Your task to perform on an android device: toggle pop-ups in chrome Image 0: 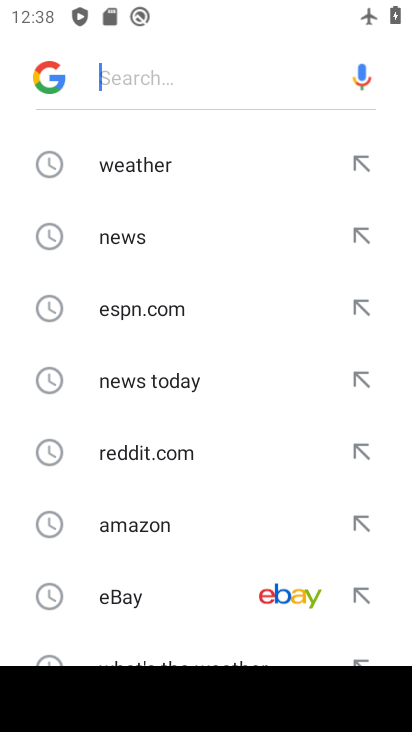
Step 0: press home button
Your task to perform on an android device: toggle pop-ups in chrome Image 1: 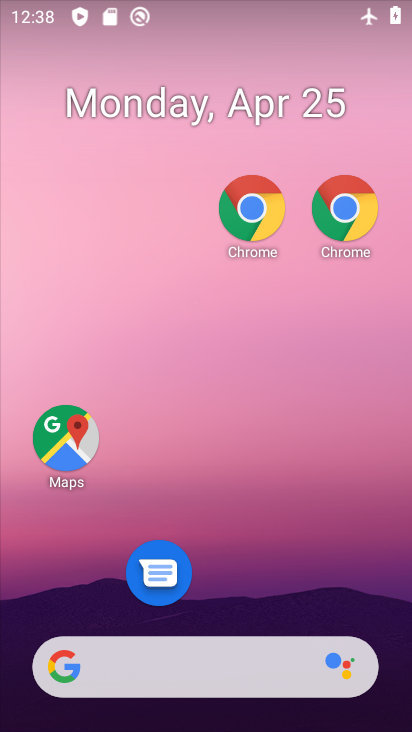
Step 1: drag from (160, 496) to (111, 168)
Your task to perform on an android device: toggle pop-ups in chrome Image 2: 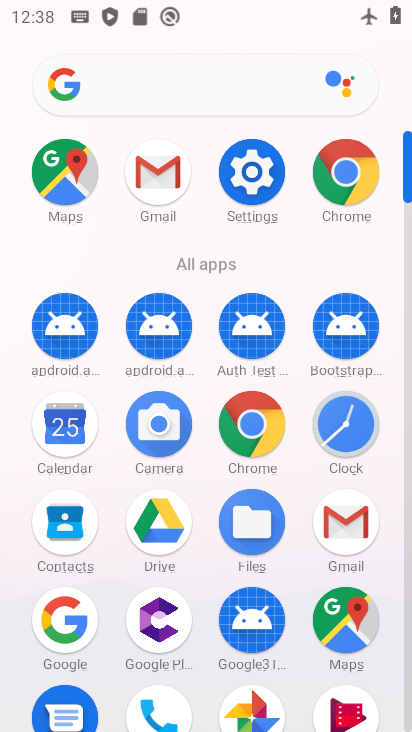
Step 2: click (333, 172)
Your task to perform on an android device: toggle pop-ups in chrome Image 3: 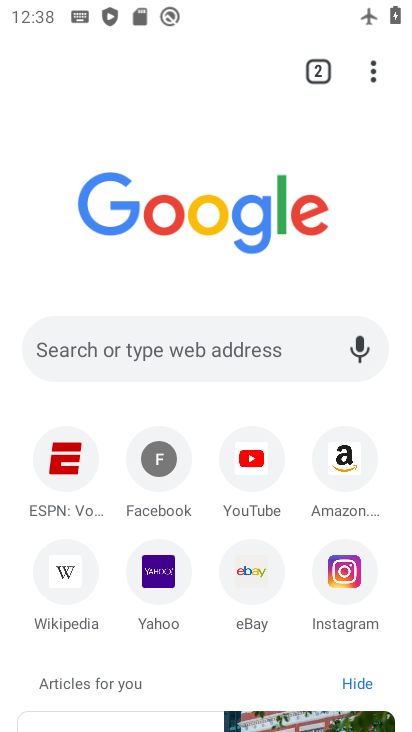
Step 3: drag from (369, 68) to (126, 612)
Your task to perform on an android device: toggle pop-ups in chrome Image 4: 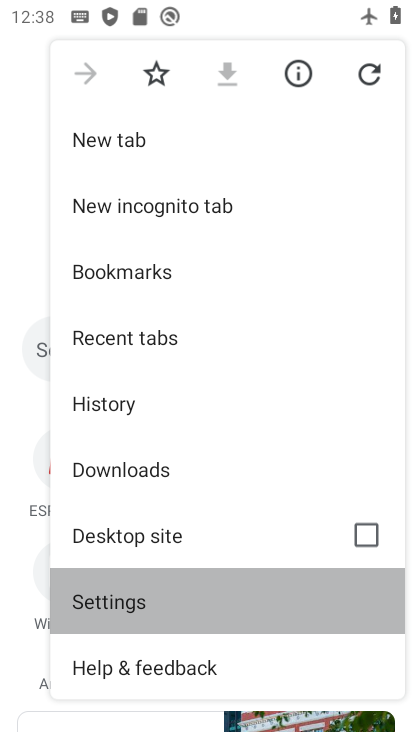
Step 4: click (126, 612)
Your task to perform on an android device: toggle pop-ups in chrome Image 5: 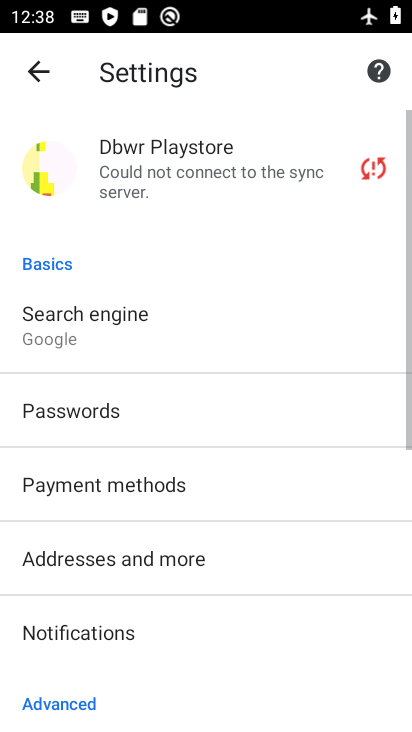
Step 5: drag from (175, 503) to (110, 66)
Your task to perform on an android device: toggle pop-ups in chrome Image 6: 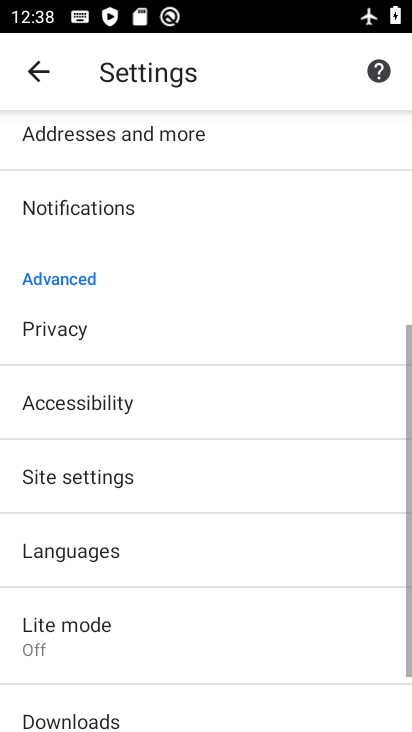
Step 6: drag from (208, 494) to (142, 76)
Your task to perform on an android device: toggle pop-ups in chrome Image 7: 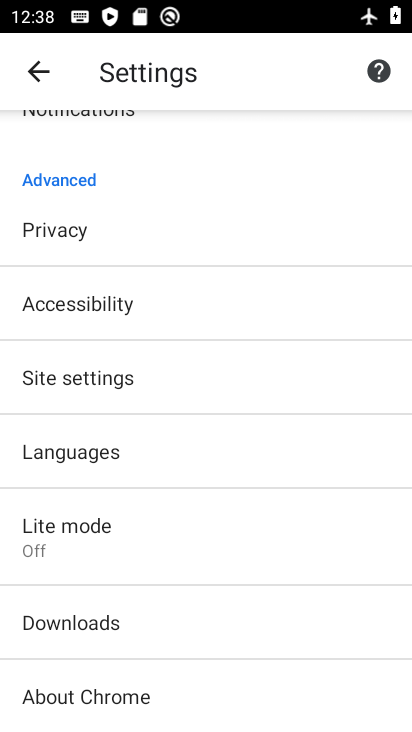
Step 7: click (72, 380)
Your task to perform on an android device: toggle pop-ups in chrome Image 8: 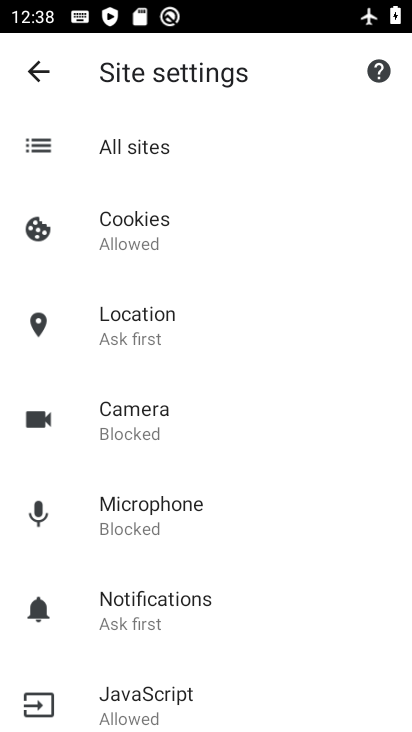
Step 8: drag from (178, 567) to (107, 174)
Your task to perform on an android device: toggle pop-ups in chrome Image 9: 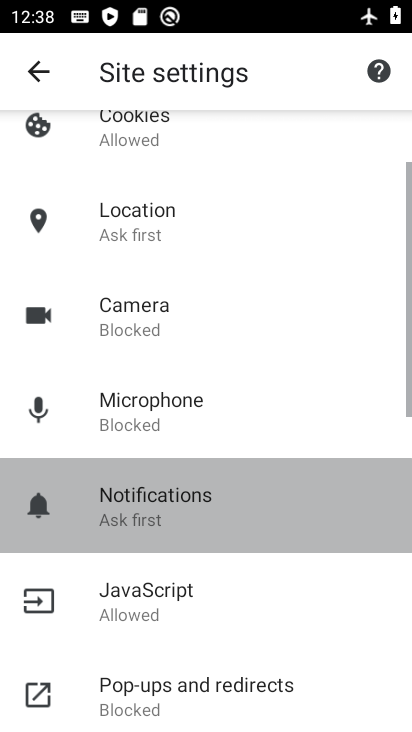
Step 9: drag from (208, 596) to (172, 165)
Your task to perform on an android device: toggle pop-ups in chrome Image 10: 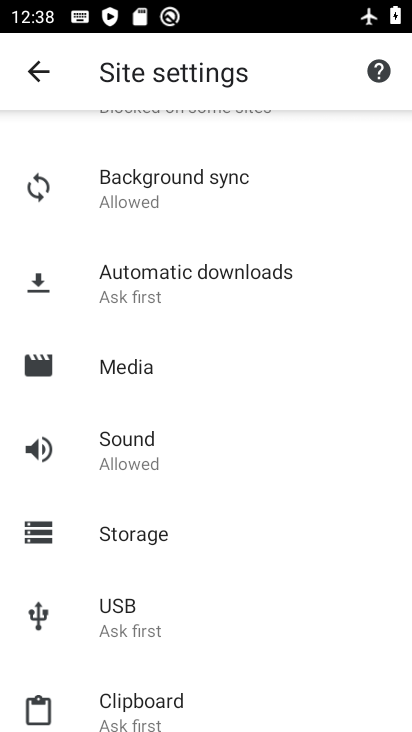
Step 10: drag from (256, 568) to (227, 535)
Your task to perform on an android device: toggle pop-ups in chrome Image 11: 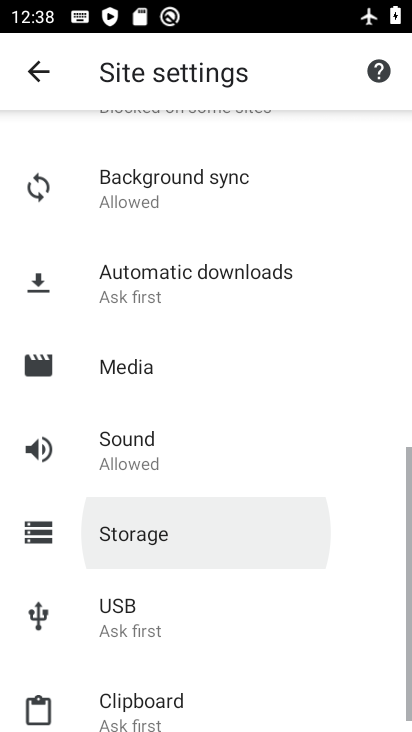
Step 11: drag from (162, 615) to (162, 652)
Your task to perform on an android device: toggle pop-ups in chrome Image 12: 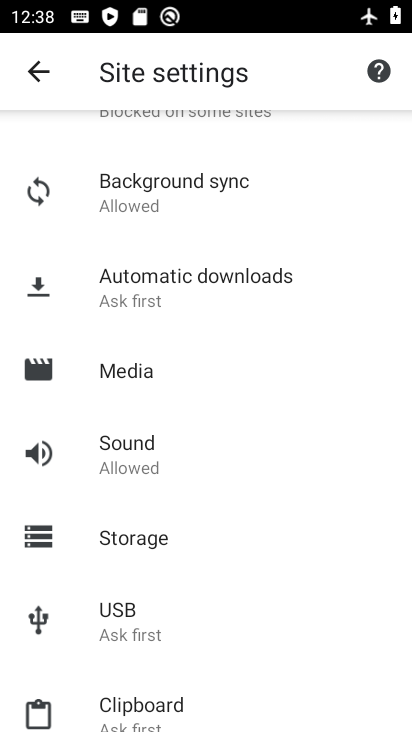
Step 12: click (134, 516)
Your task to perform on an android device: toggle pop-ups in chrome Image 13: 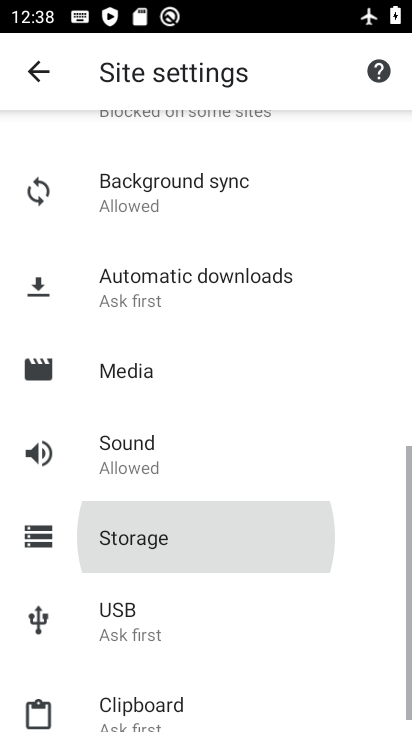
Step 13: click (166, 472)
Your task to perform on an android device: toggle pop-ups in chrome Image 14: 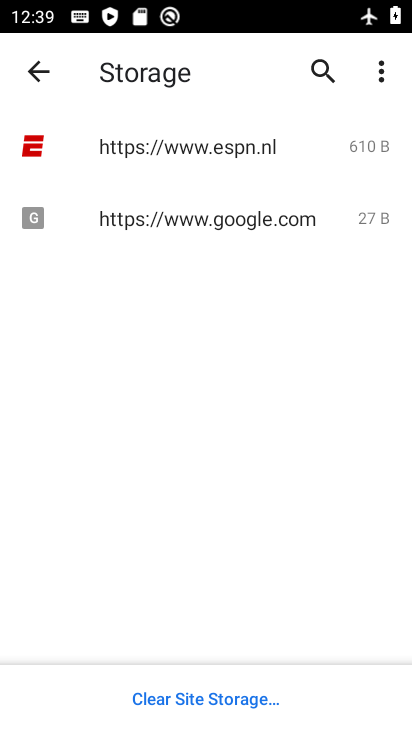
Step 14: click (37, 75)
Your task to perform on an android device: toggle pop-ups in chrome Image 15: 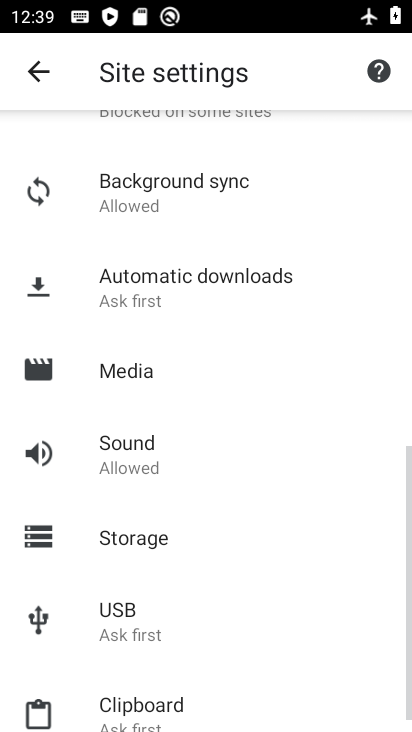
Step 15: drag from (195, 182) to (221, 469)
Your task to perform on an android device: toggle pop-ups in chrome Image 16: 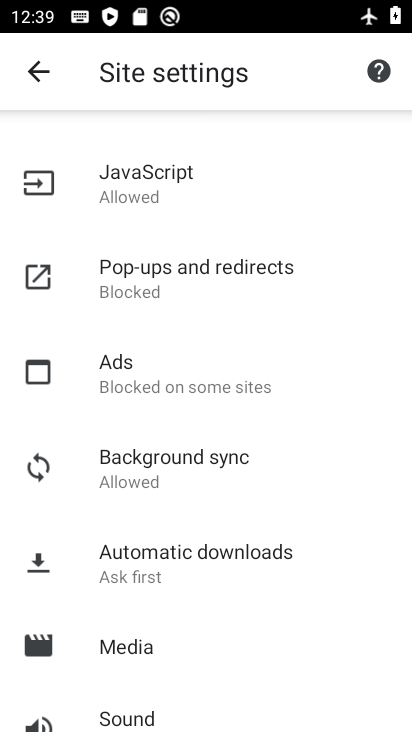
Step 16: click (138, 278)
Your task to perform on an android device: toggle pop-ups in chrome Image 17: 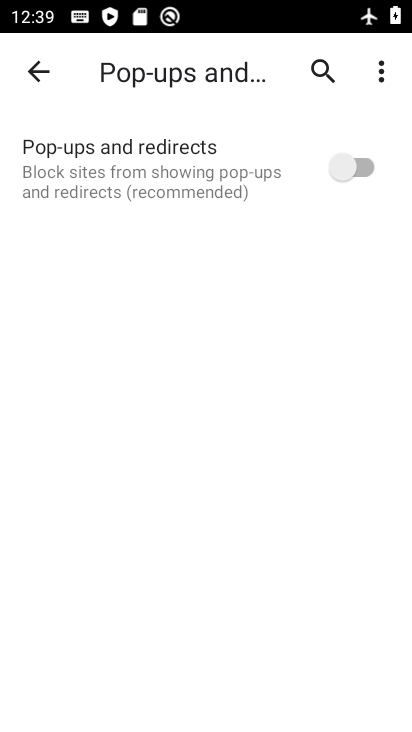
Step 17: click (341, 169)
Your task to perform on an android device: toggle pop-ups in chrome Image 18: 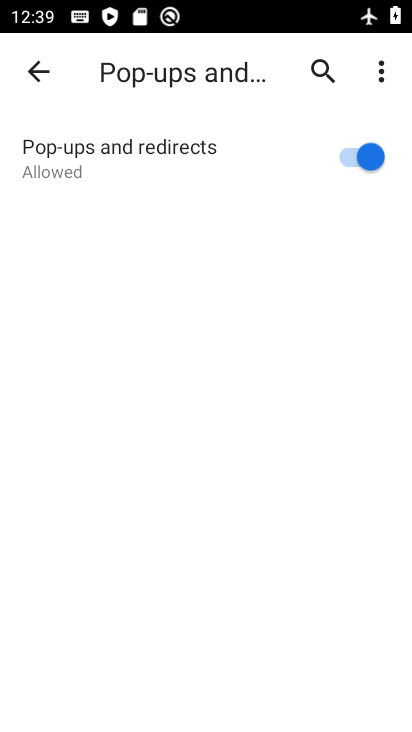
Step 18: task complete